Your task to perform on an android device: show emergency info Image 0: 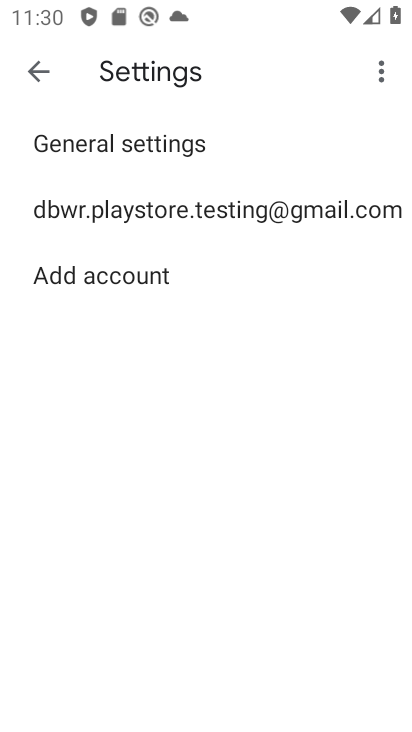
Step 0: press home button
Your task to perform on an android device: show emergency info Image 1: 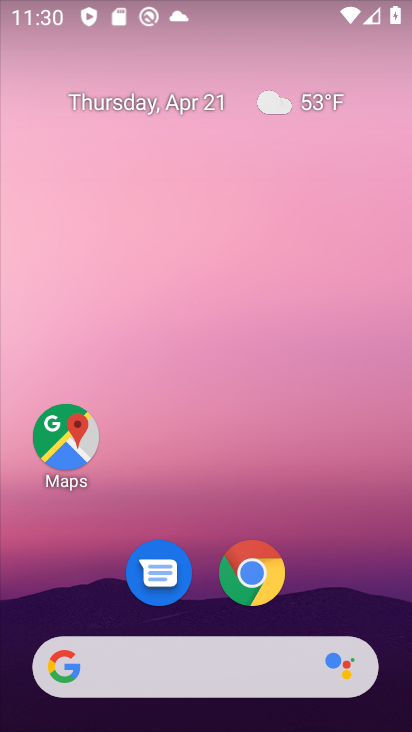
Step 1: drag from (175, 663) to (280, 97)
Your task to perform on an android device: show emergency info Image 2: 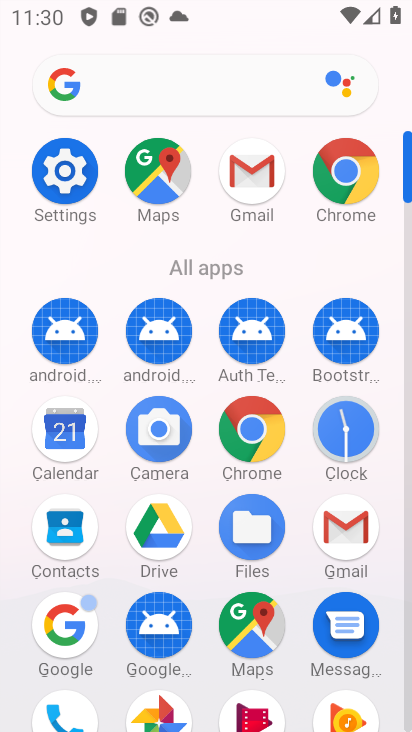
Step 2: click (71, 178)
Your task to perform on an android device: show emergency info Image 3: 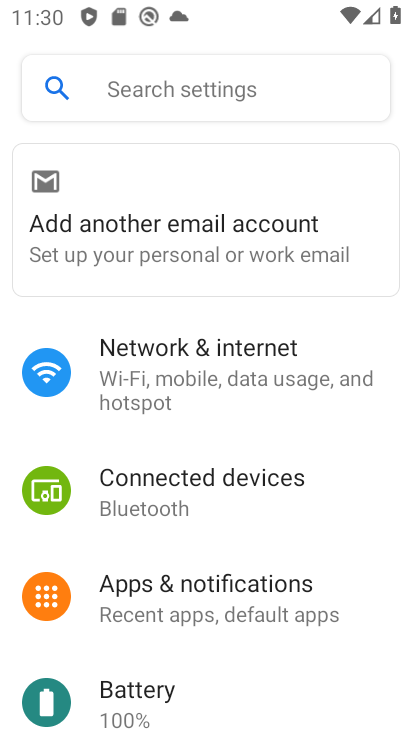
Step 3: drag from (195, 647) to (299, 199)
Your task to perform on an android device: show emergency info Image 4: 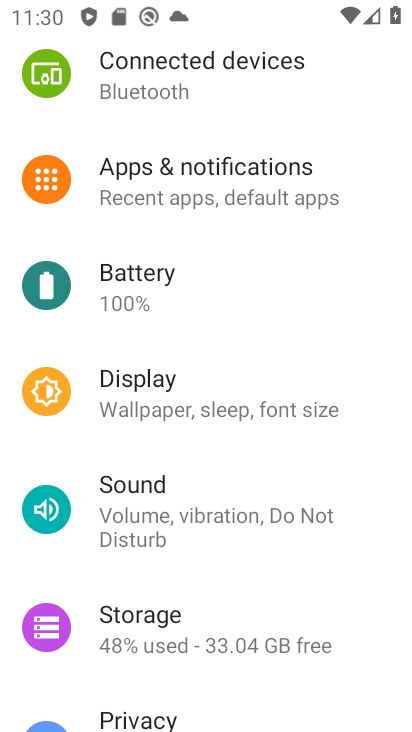
Step 4: drag from (215, 611) to (311, 58)
Your task to perform on an android device: show emergency info Image 5: 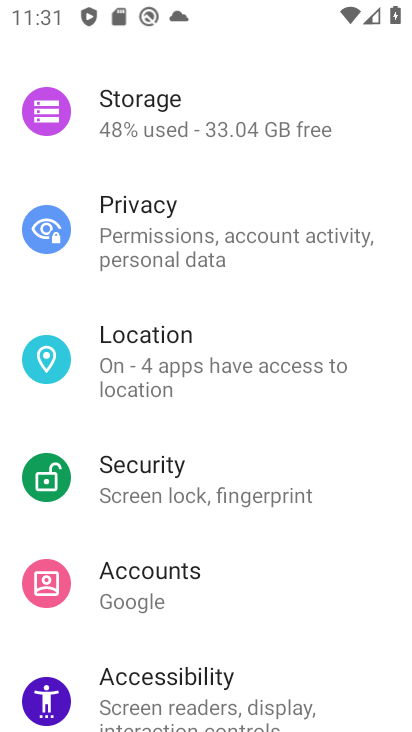
Step 5: drag from (224, 632) to (286, 261)
Your task to perform on an android device: show emergency info Image 6: 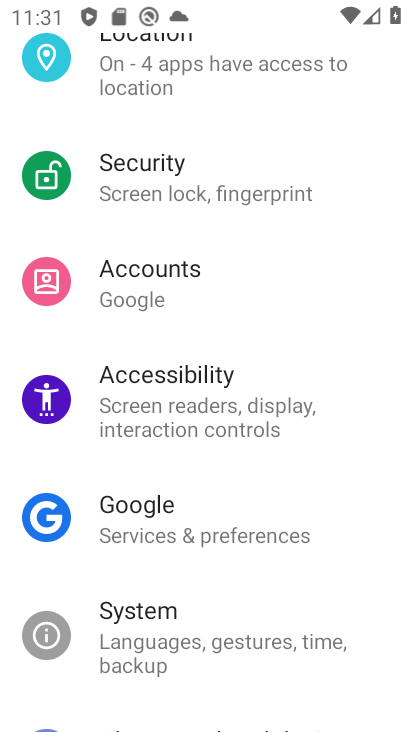
Step 6: drag from (223, 611) to (286, 219)
Your task to perform on an android device: show emergency info Image 7: 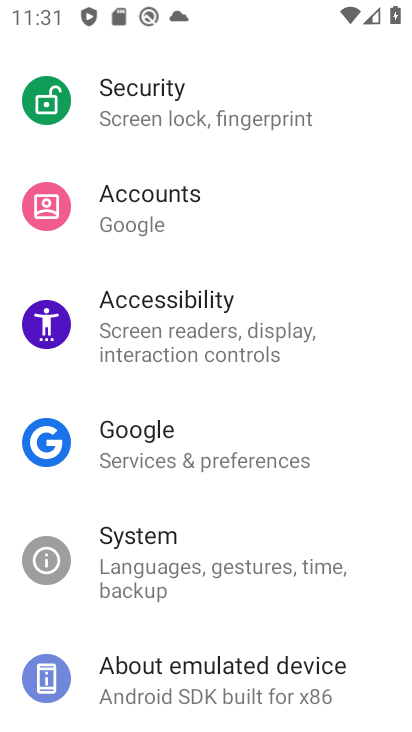
Step 7: click (179, 667)
Your task to perform on an android device: show emergency info Image 8: 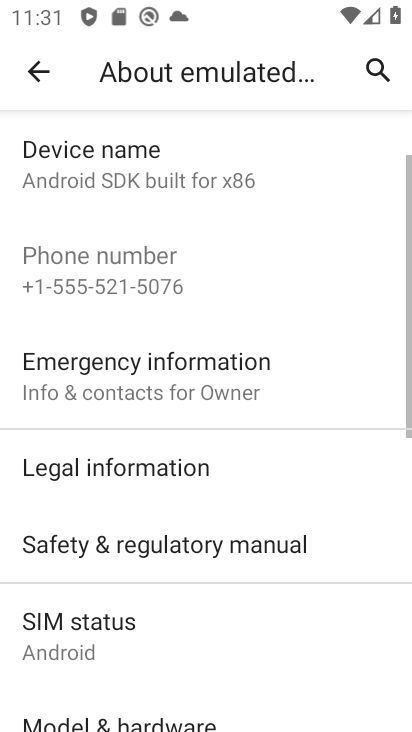
Step 8: click (160, 364)
Your task to perform on an android device: show emergency info Image 9: 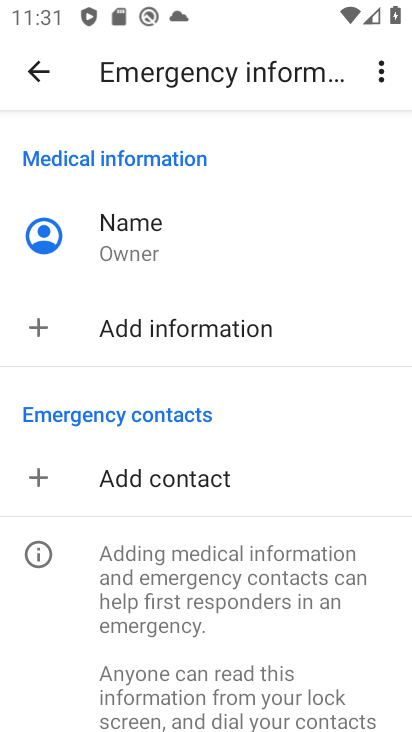
Step 9: task complete